Your task to perform on an android device: toggle airplane mode Image 0: 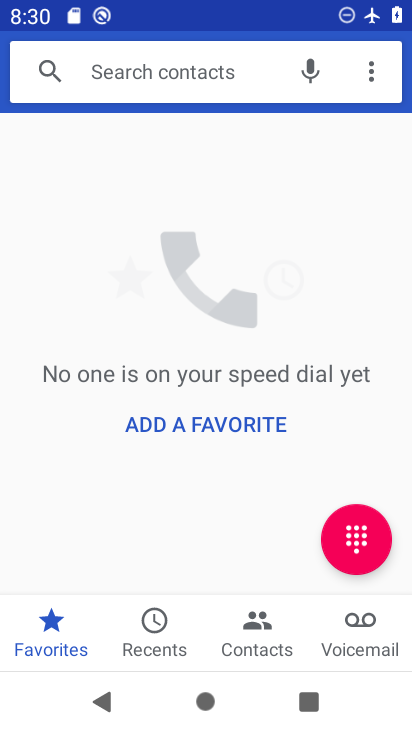
Step 0: press home button
Your task to perform on an android device: toggle airplane mode Image 1: 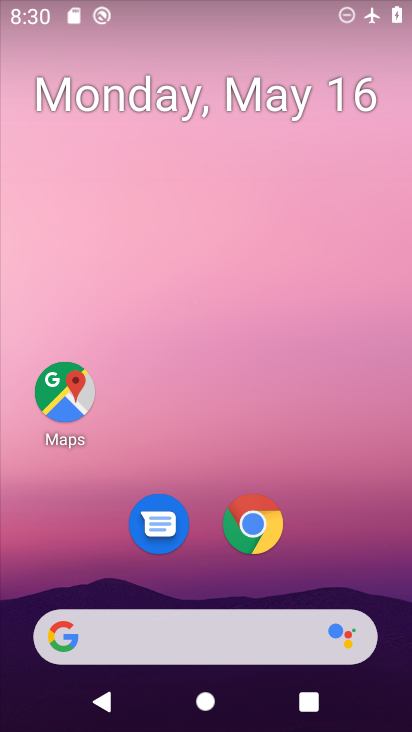
Step 1: drag from (214, 454) to (222, 36)
Your task to perform on an android device: toggle airplane mode Image 2: 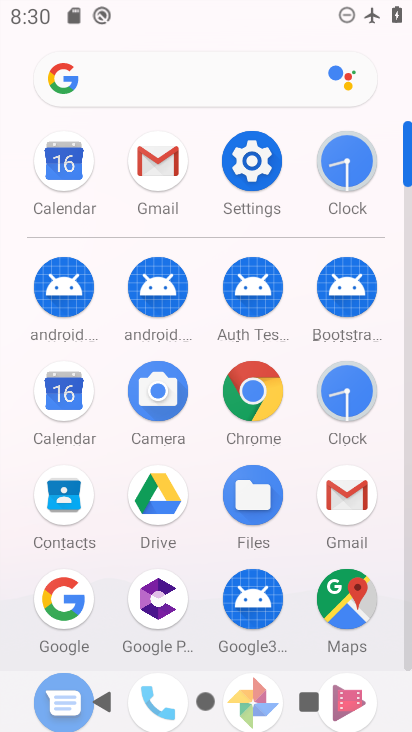
Step 2: click (265, 149)
Your task to perform on an android device: toggle airplane mode Image 3: 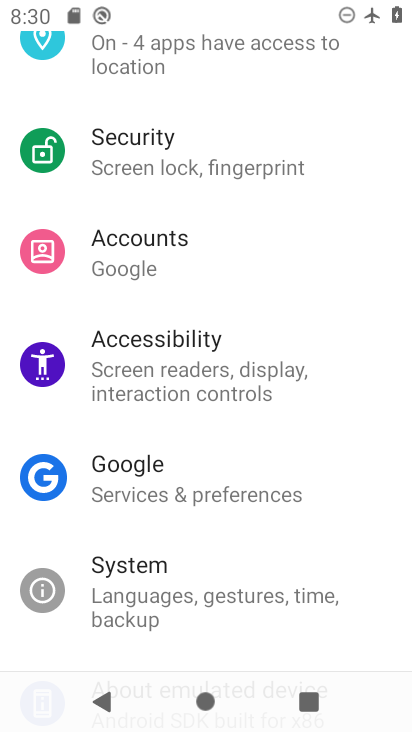
Step 3: drag from (259, 156) to (221, 567)
Your task to perform on an android device: toggle airplane mode Image 4: 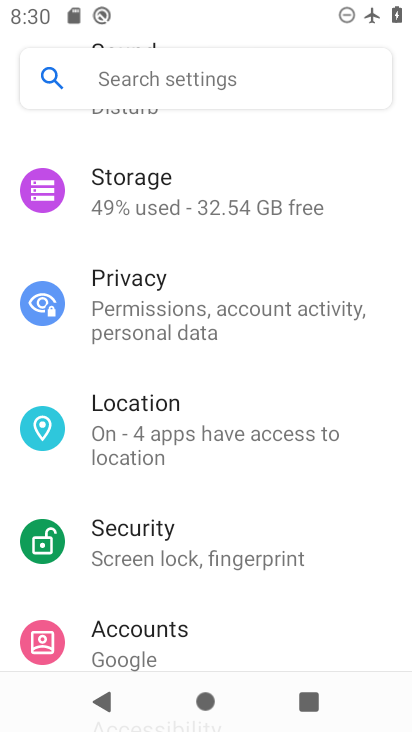
Step 4: drag from (218, 203) to (230, 520)
Your task to perform on an android device: toggle airplane mode Image 5: 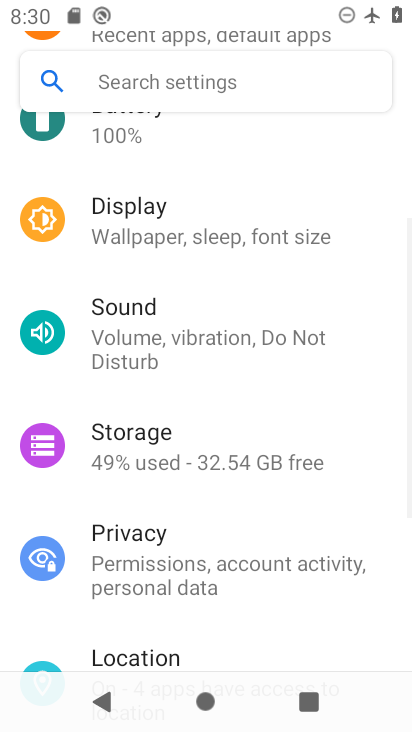
Step 5: drag from (229, 133) to (253, 416)
Your task to perform on an android device: toggle airplane mode Image 6: 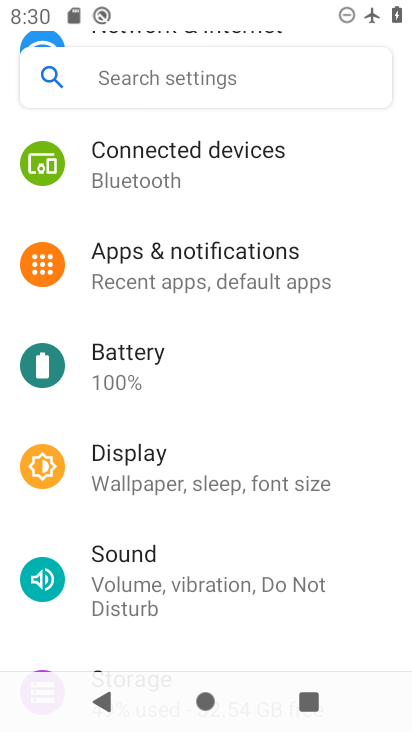
Step 6: drag from (232, 161) to (230, 412)
Your task to perform on an android device: toggle airplane mode Image 7: 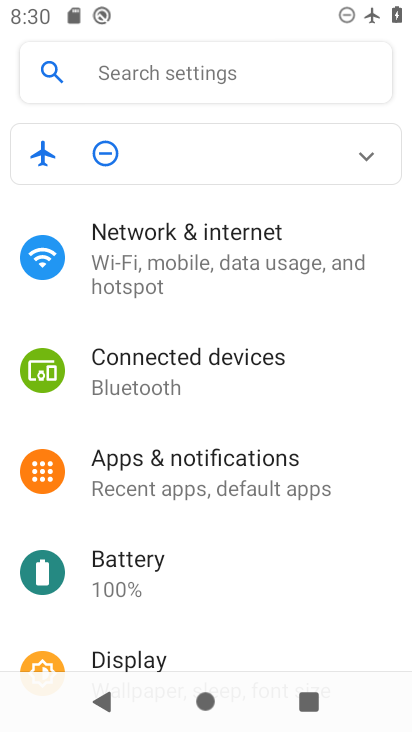
Step 7: click (203, 227)
Your task to perform on an android device: toggle airplane mode Image 8: 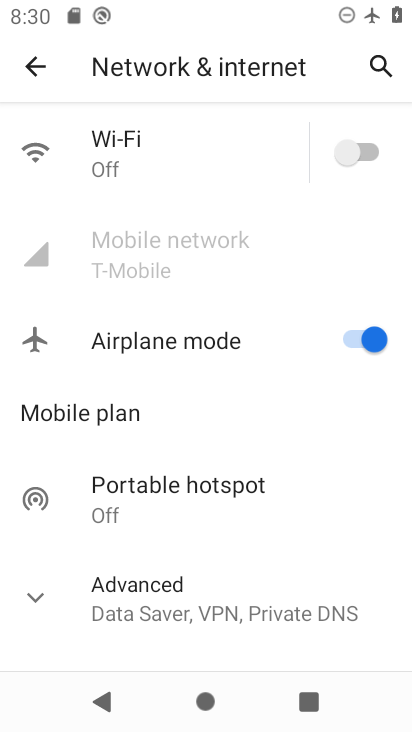
Step 8: click (355, 338)
Your task to perform on an android device: toggle airplane mode Image 9: 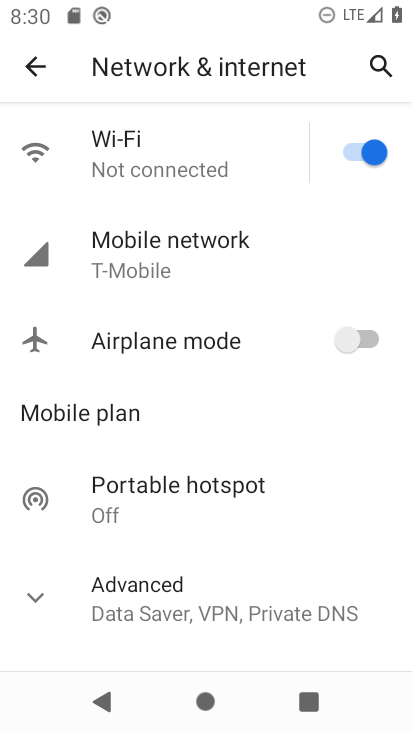
Step 9: task complete